Your task to perform on an android device: Go to wifi settings Image 0: 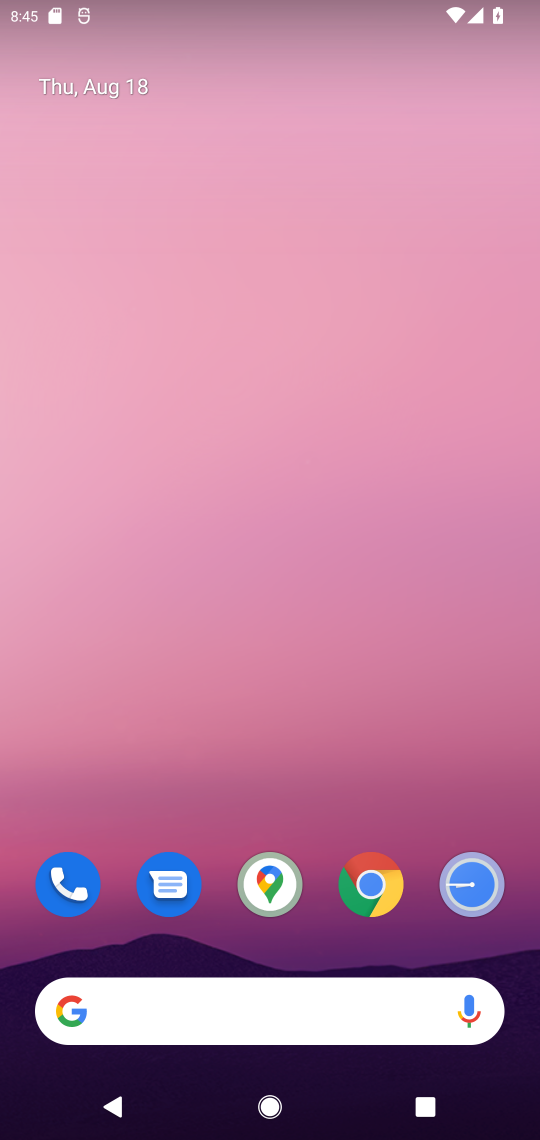
Step 0: drag from (201, 15) to (348, 892)
Your task to perform on an android device: Go to wifi settings Image 1: 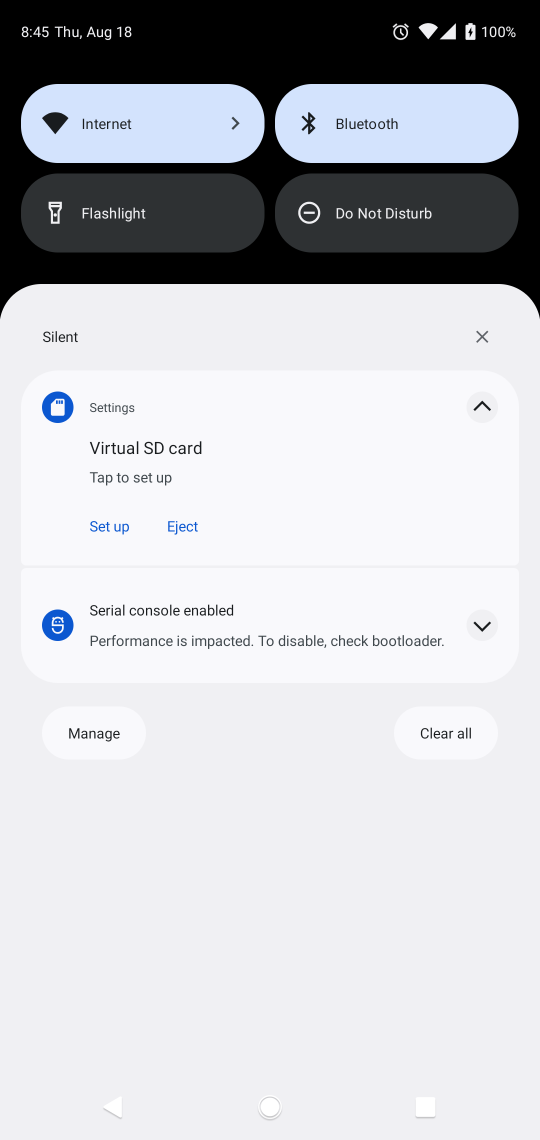
Step 1: click (149, 142)
Your task to perform on an android device: Go to wifi settings Image 2: 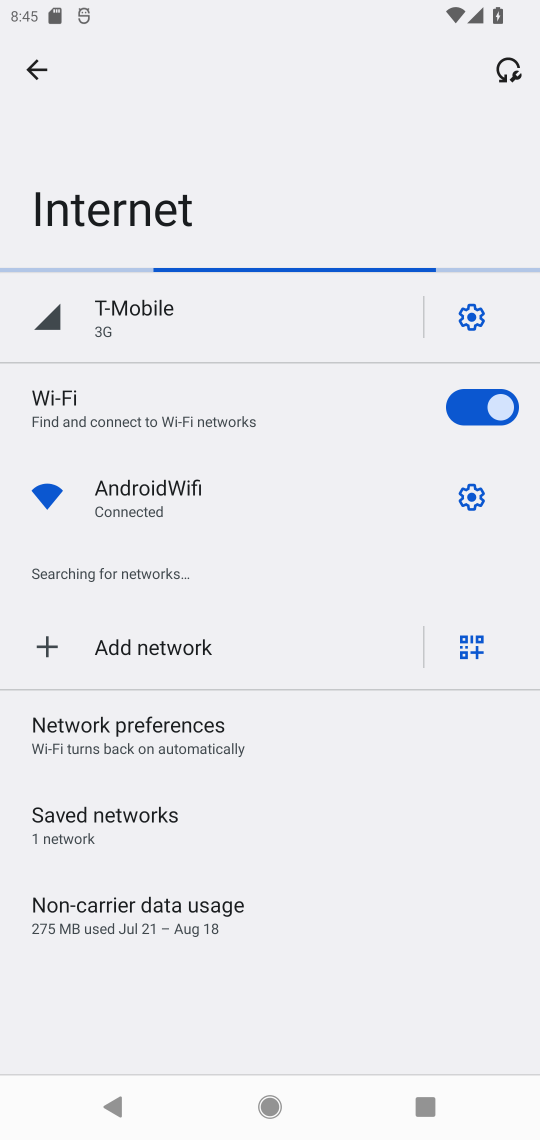
Step 2: task complete